Your task to perform on an android device: stop showing notifications on the lock screen Image 0: 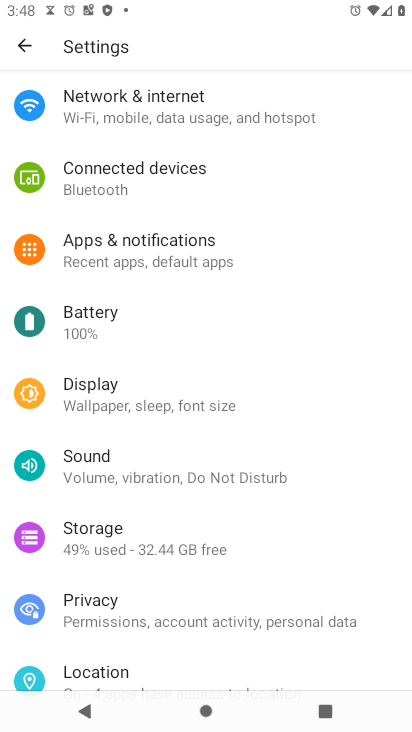
Step 0: click (171, 249)
Your task to perform on an android device: stop showing notifications on the lock screen Image 1: 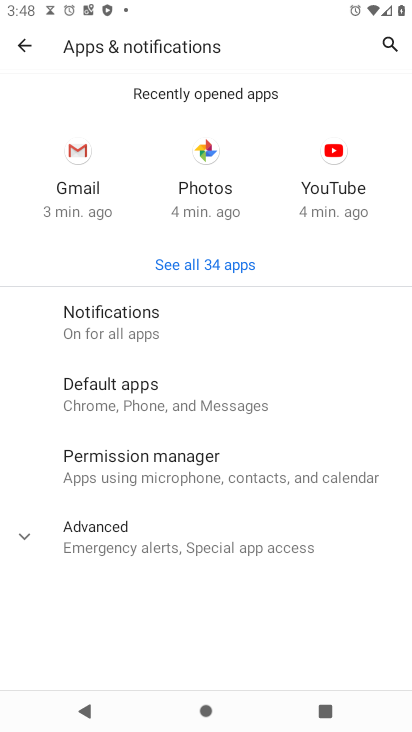
Step 1: click (24, 530)
Your task to perform on an android device: stop showing notifications on the lock screen Image 2: 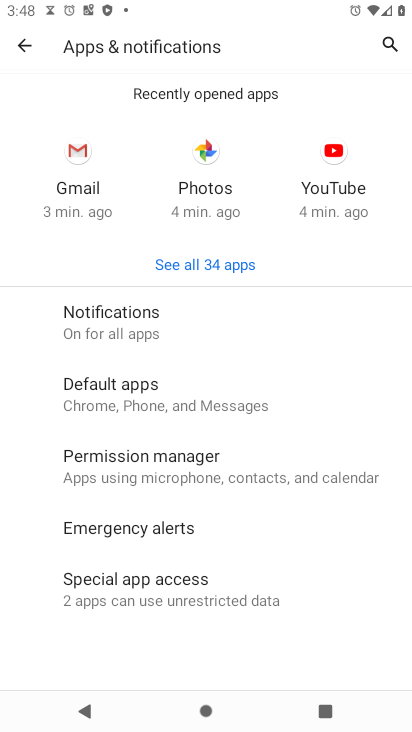
Step 2: click (174, 327)
Your task to perform on an android device: stop showing notifications on the lock screen Image 3: 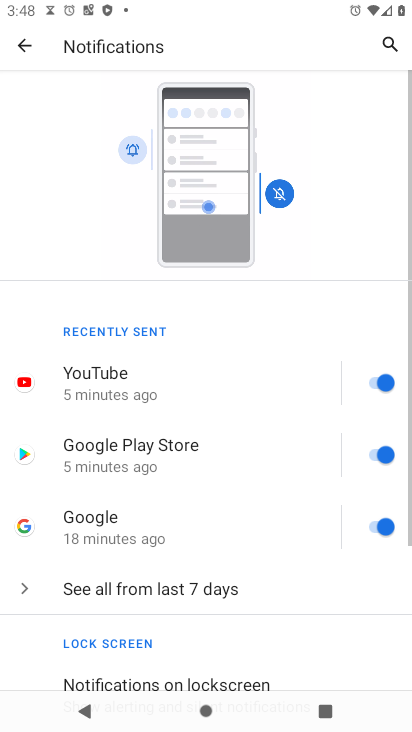
Step 3: drag from (255, 558) to (246, 195)
Your task to perform on an android device: stop showing notifications on the lock screen Image 4: 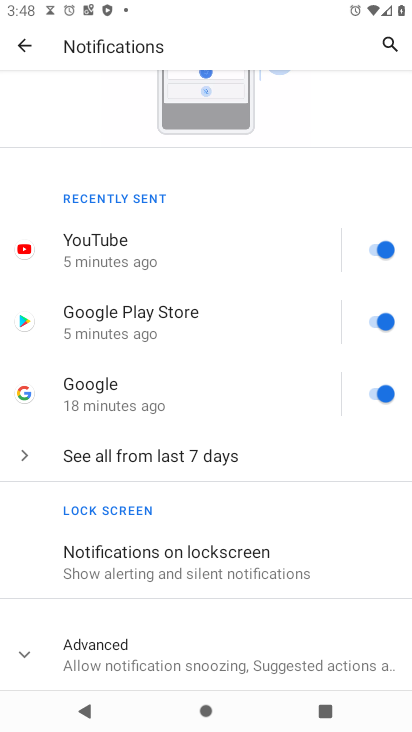
Step 4: click (50, 647)
Your task to perform on an android device: stop showing notifications on the lock screen Image 5: 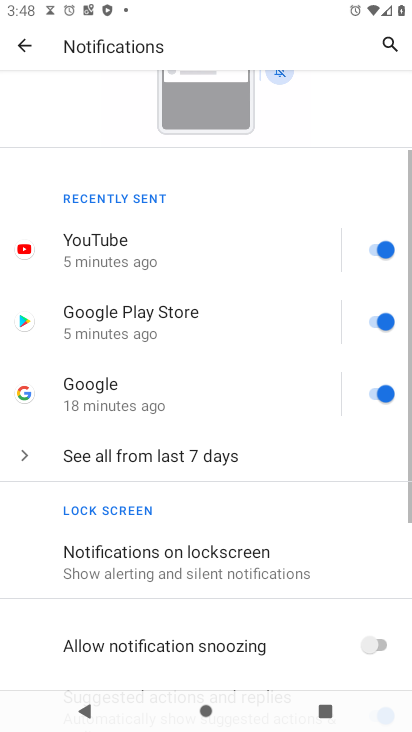
Step 5: click (241, 544)
Your task to perform on an android device: stop showing notifications on the lock screen Image 6: 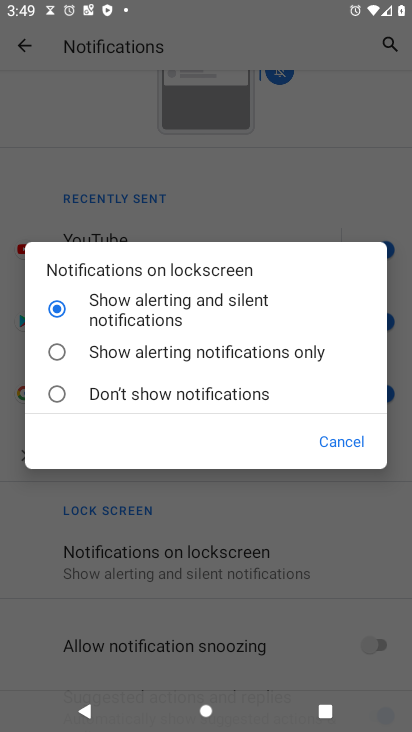
Step 6: click (95, 383)
Your task to perform on an android device: stop showing notifications on the lock screen Image 7: 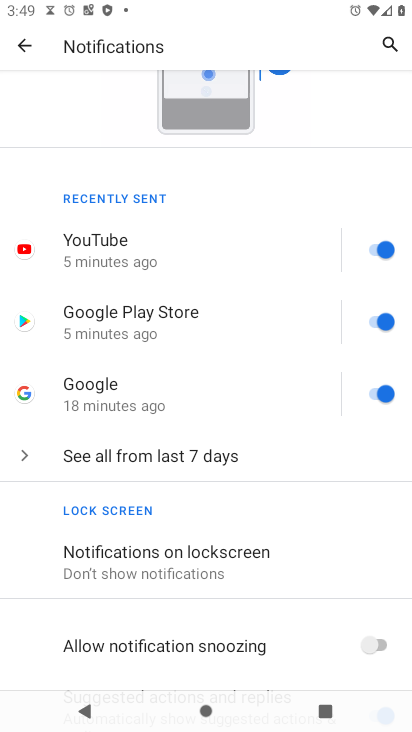
Step 7: task complete